Your task to perform on an android device: toggle translation in the chrome app Image 0: 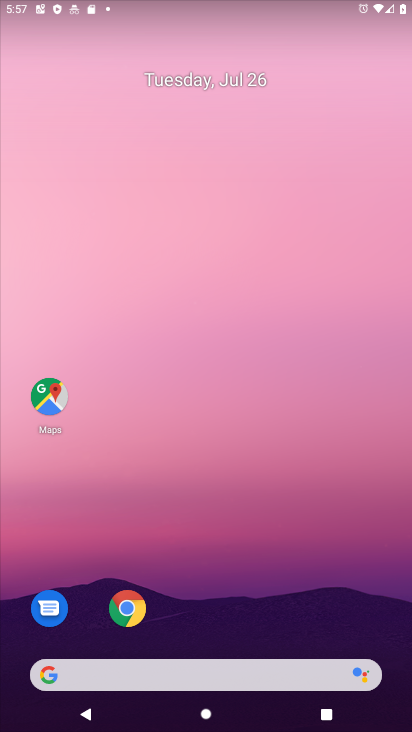
Step 0: press home button
Your task to perform on an android device: toggle translation in the chrome app Image 1: 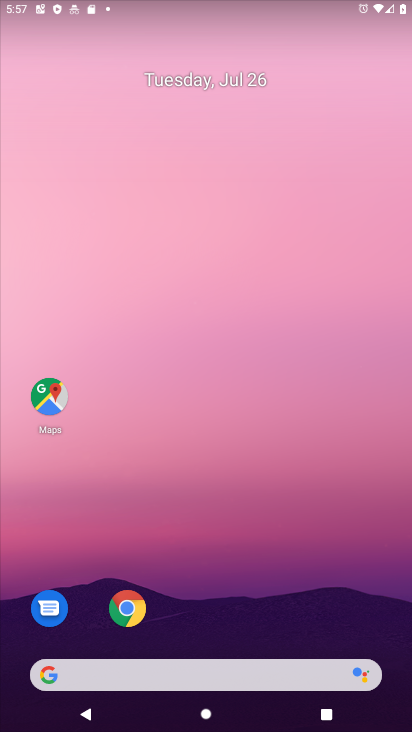
Step 1: drag from (275, 639) to (301, 23)
Your task to perform on an android device: toggle translation in the chrome app Image 2: 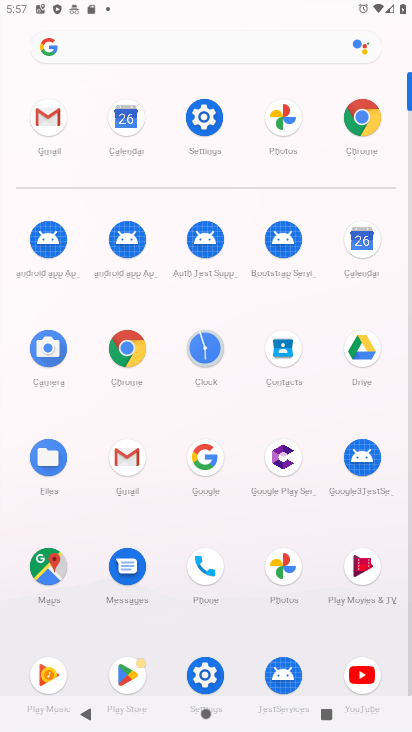
Step 2: click (358, 124)
Your task to perform on an android device: toggle translation in the chrome app Image 3: 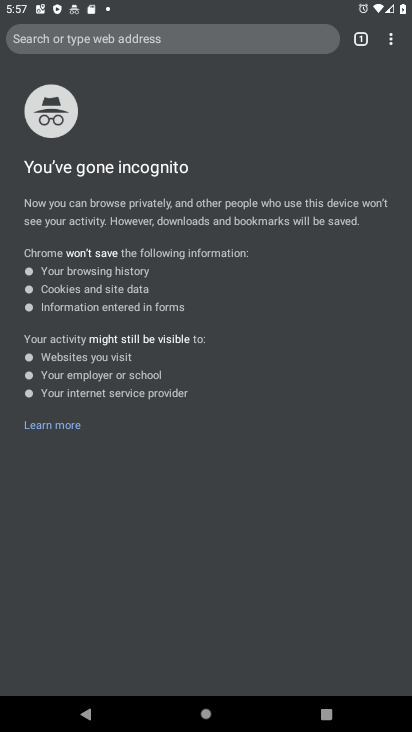
Step 3: drag from (391, 45) to (249, 294)
Your task to perform on an android device: toggle translation in the chrome app Image 4: 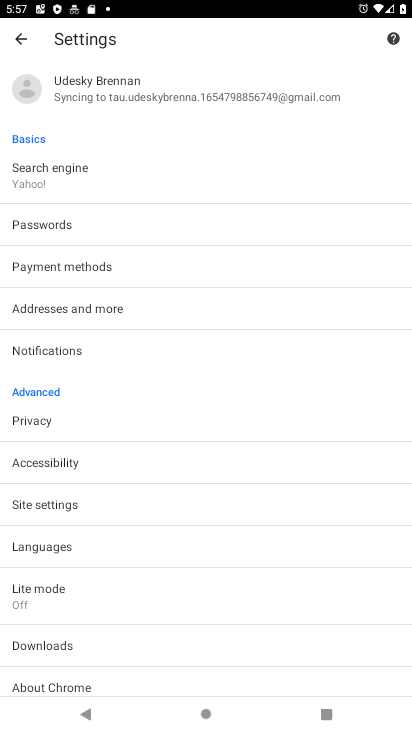
Step 4: click (47, 549)
Your task to perform on an android device: toggle translation in the chrome app Image 5: 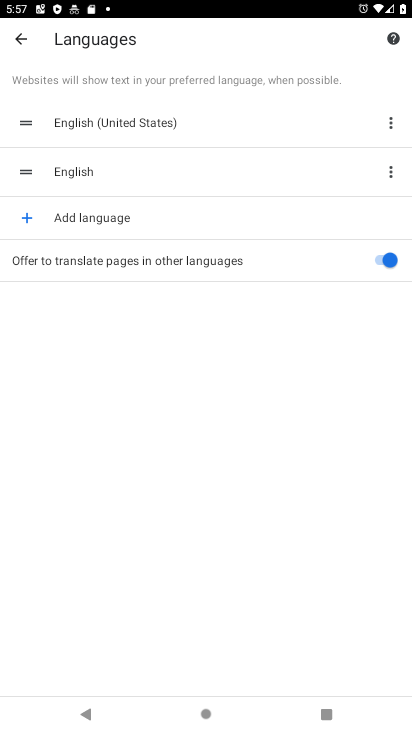
Step 5: click (384, 261)
Your task to perform on an android device: toggle translation in the chrome app Image 6: 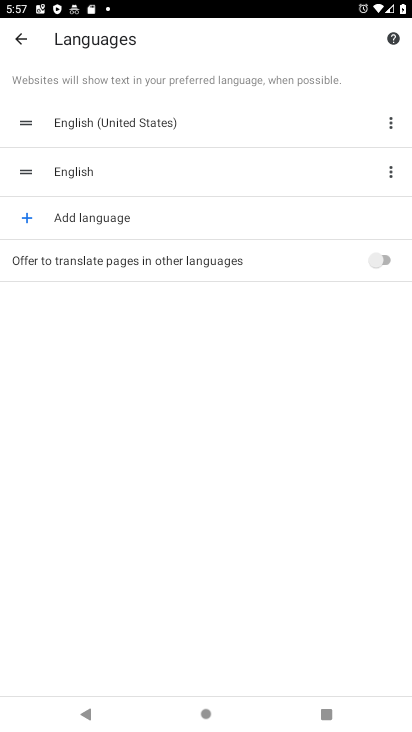
Step 6: task complete